Your task to perform on an android device: Open accessibility settings Image 0: 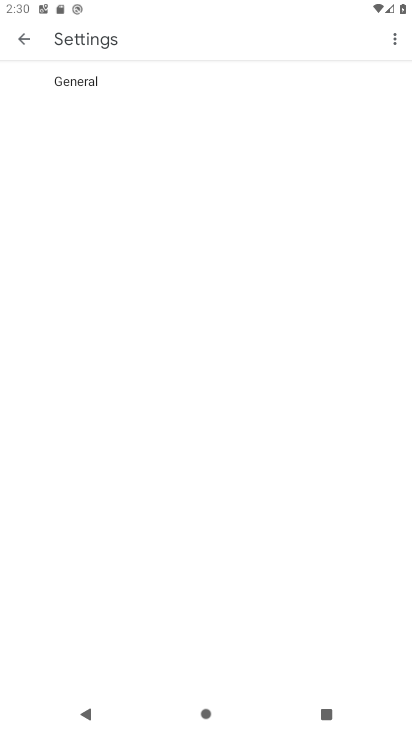
Step 0: press home button
Your task to perform on an android device: Open accessibility settings Image 1: 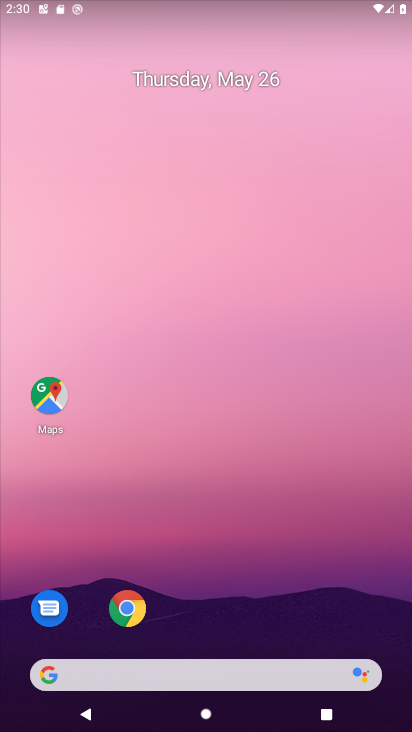
Step 1: drag from (195, 650) to (309, 120)
Your task to perform on an android device: Open accessibility settings Image 2: 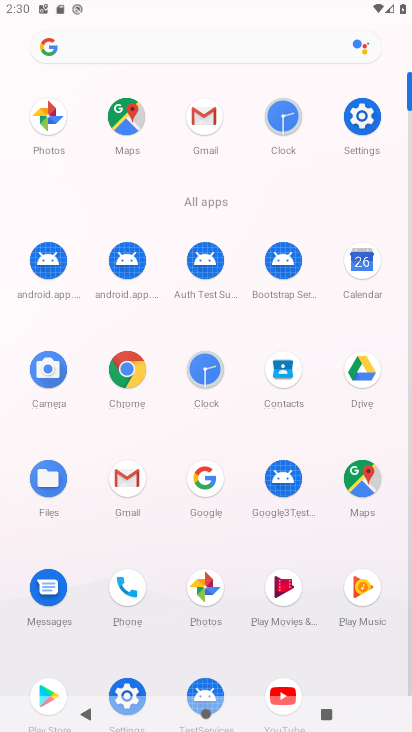
Step 2: drag from (172, 687) to (245, 493)
Your task to perform on an android device: Open accessibility settings Image 3: 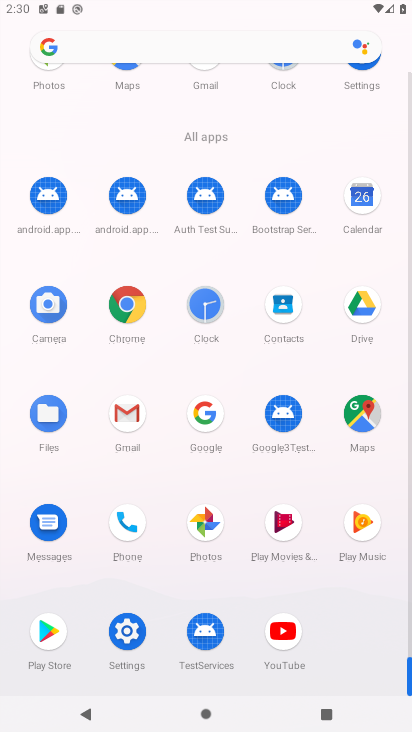
Step 3: click (130, 647)
Your task to perform on an android device: Open accessibility settings Image 4: 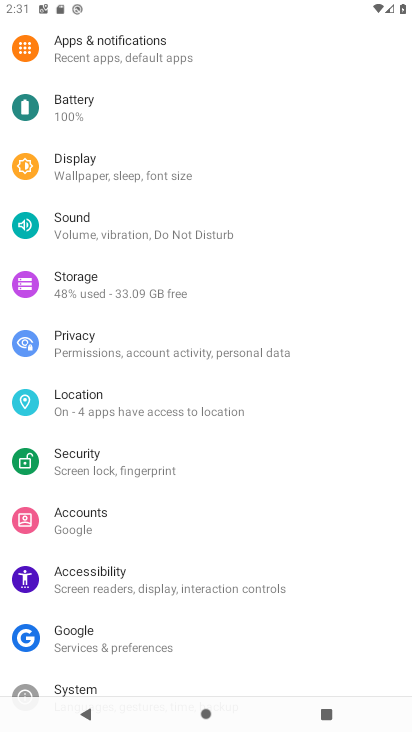
Step 4: drag from (163, 624) to (275, 364)
Your task to perform on an android device: Open accessibility settings Image 5: 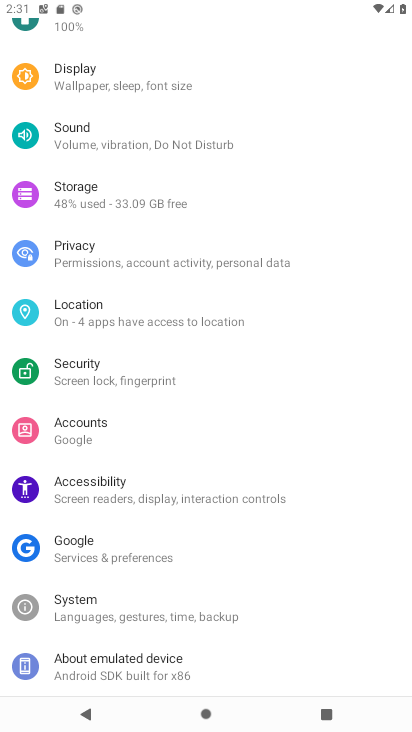
Step 5: click (157, 495)
Your task to perform on an android device: Open accessibility settings Image 6: 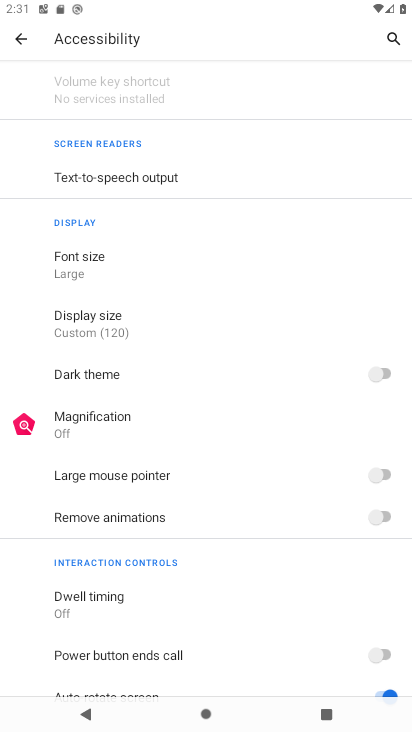
Step 6: task complete